Your task to perform on an android device: change alarm snooze length Image 0: 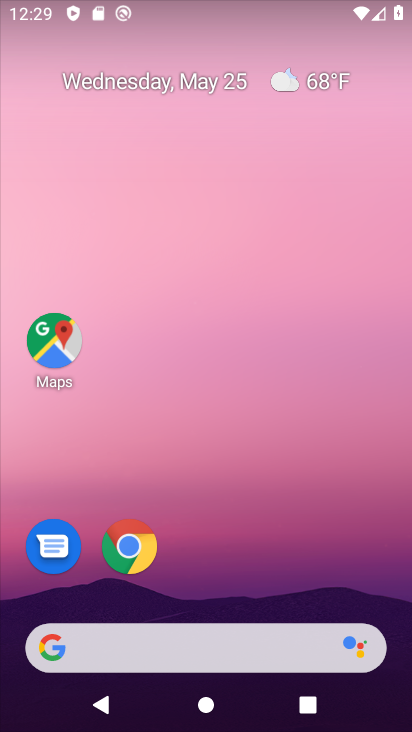
Step 0: drag from (323, 600) to (259, 122)
Your task to perform on an android device: change alarm snooze length Image 1: 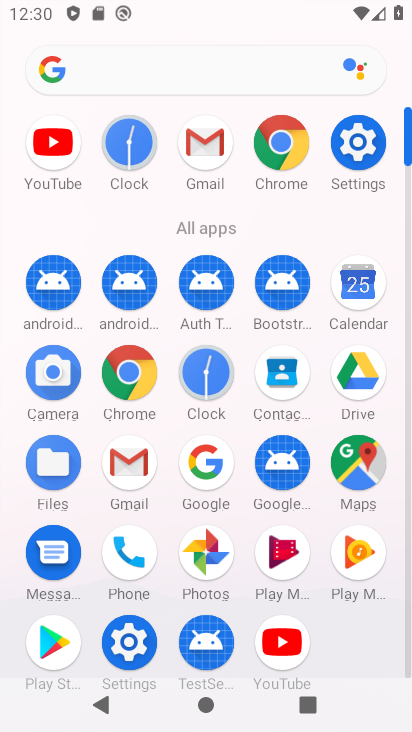
Step 1: click (139, 164)
Your task to perform on an android device: change alarm snooze length Image 2: 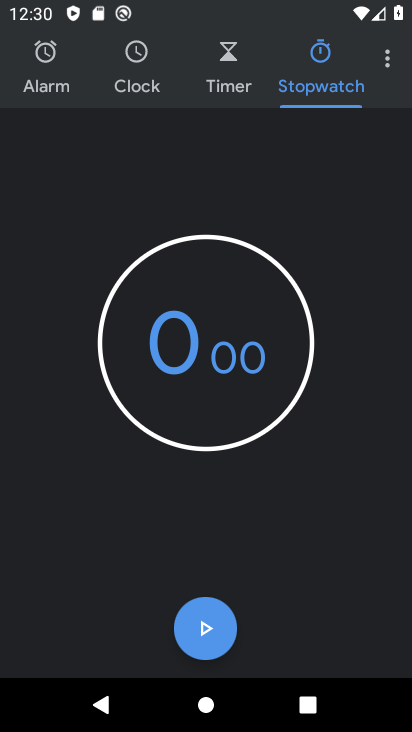
Step 2: click (382, 71)
Your task to perform on an android device: change alarm snooze length Image 3: 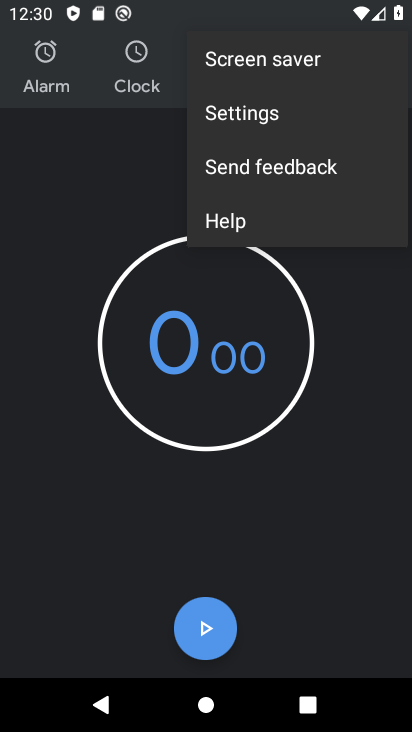
Step 3: click (299, 111)
Your task to perform on an android device: change alarm snooze length Image 4: 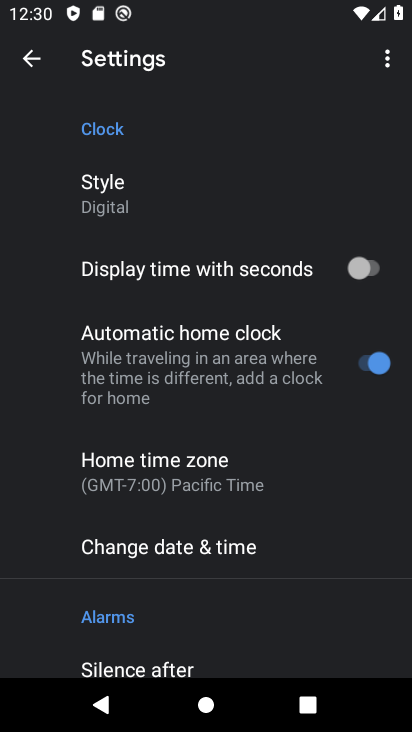
Step 4: drag from (236, 475) to (243, 212)
Your task to perform on an android device: change alarm snooze length Image 5: 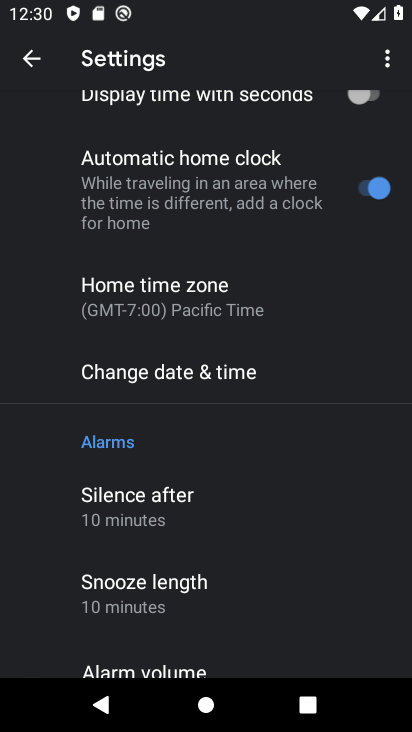
Step 5: click (207, 593)
Your task to perform on an android device: change alarm snooze length Image 6: 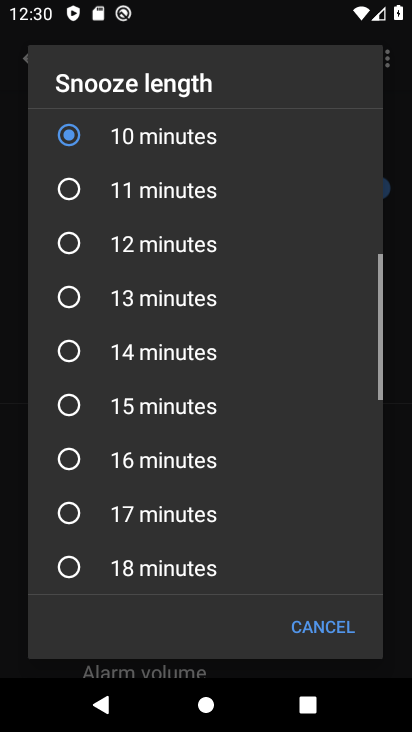
Step 6: click (184, 506)
Your task to perform on an android device: change alarm snooze length Image 7: 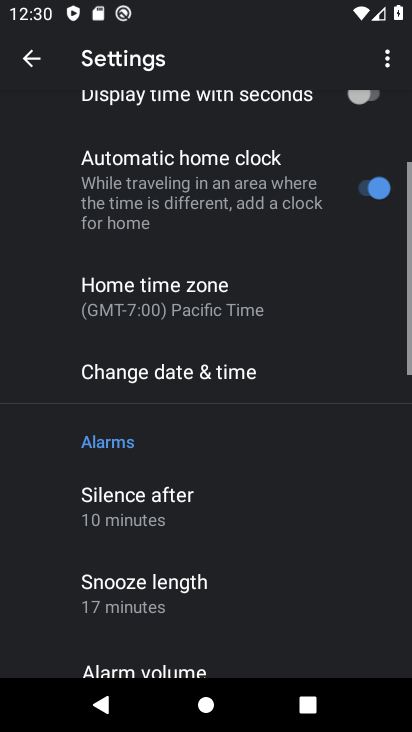
Step 7: task complete